Your task to perform on an android device: Open Chrome and go to settings Image 0: 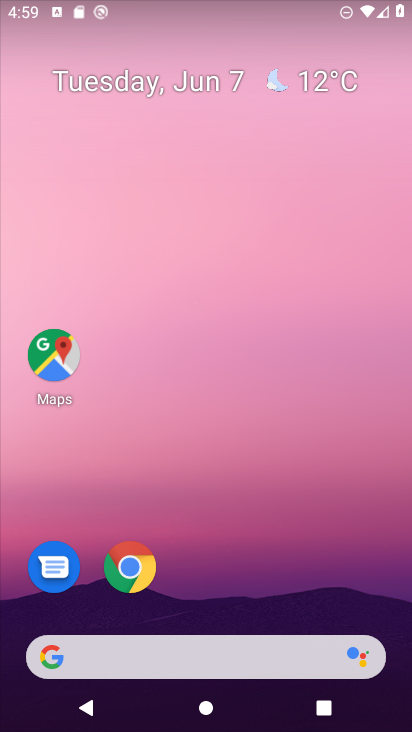
Step 0: drag from (230, 661) to (275, 60)
Your task to perform on an android device: Open Chrome and go to settings Image 1: 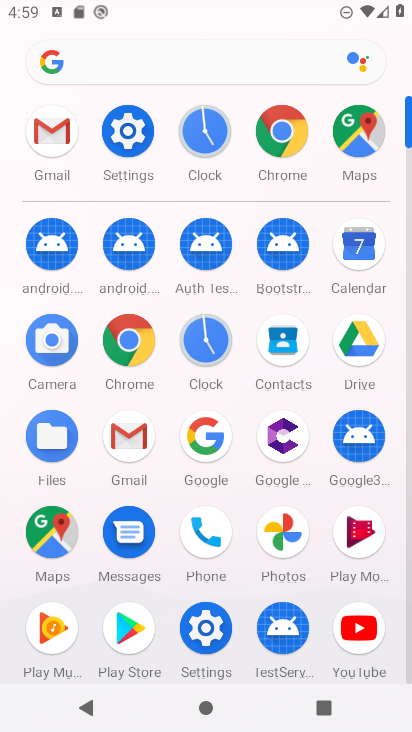
Step 1: click (154, 339)
Your task to perform on an android device: Open Chrome and go to settings Image 2: 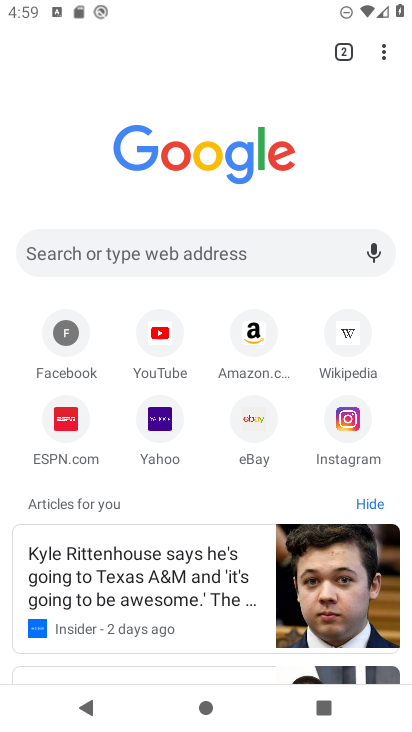
Step 2: click (387, 50)
Your task to perform on an android device: Open Chrome and go to settings Image 3: 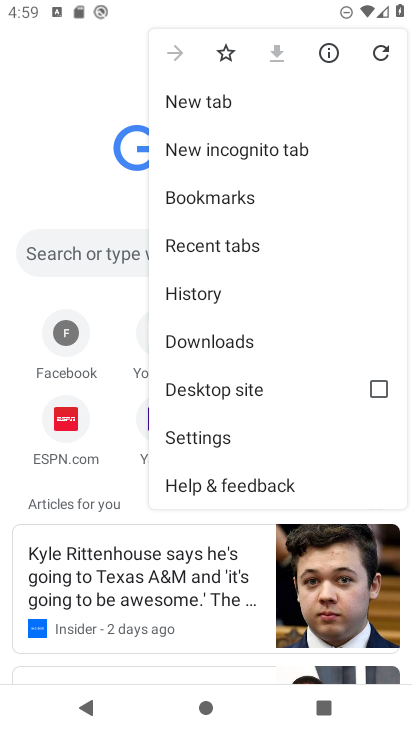
Step 3: click (186, 438)
Your task to perform on an android device: Open Chrome and go to settings Image 4: 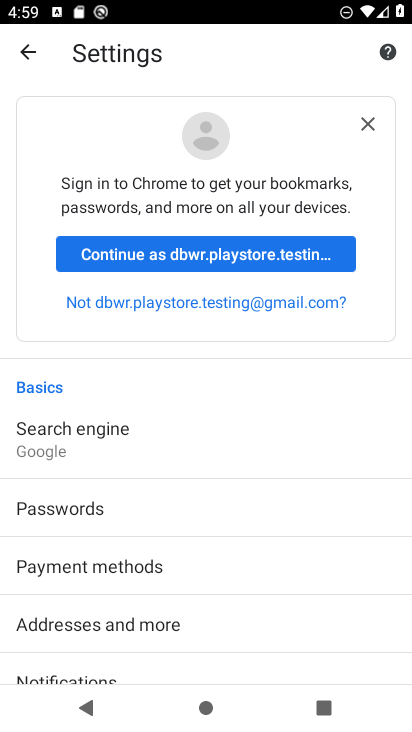
Step 4: task complete